Your task to perform on an android device: toggle priority inbox in the gmail app Image 0: 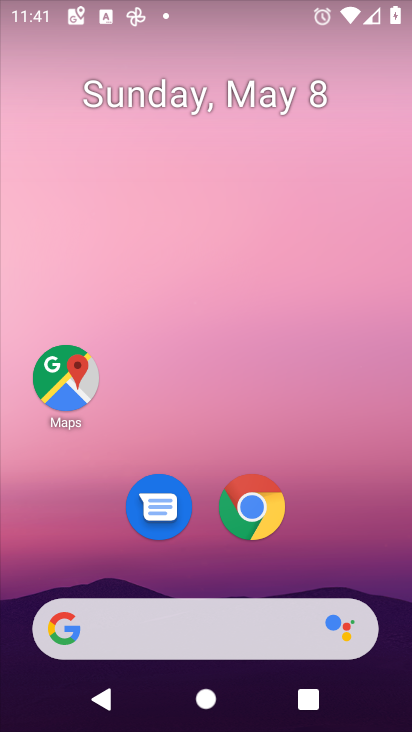
Step 0: drag from (242, 674) to (157, 135)
Your task to perform on an android device: toggle priority inbox in the gmail app Image 1: 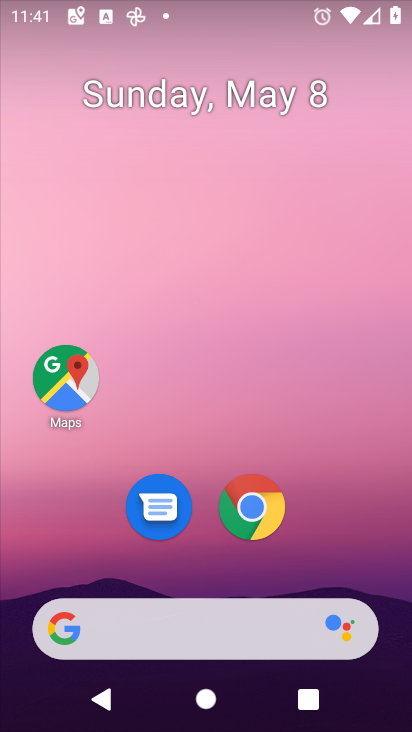
Step 1: drag from (254, 615) to (253, 1)
Your task to perform on an android device: toggle priority inbox in the gmail app Image 2: 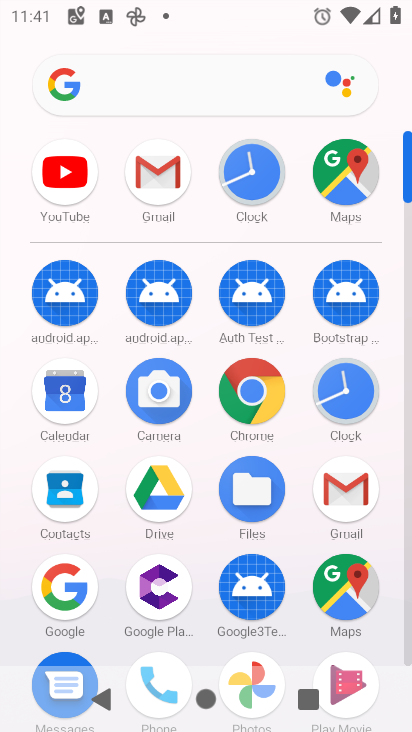
Step 2: click (344, 492)
Your task to perform on an android device: toggle priority inbox in the gmail app Image 3: 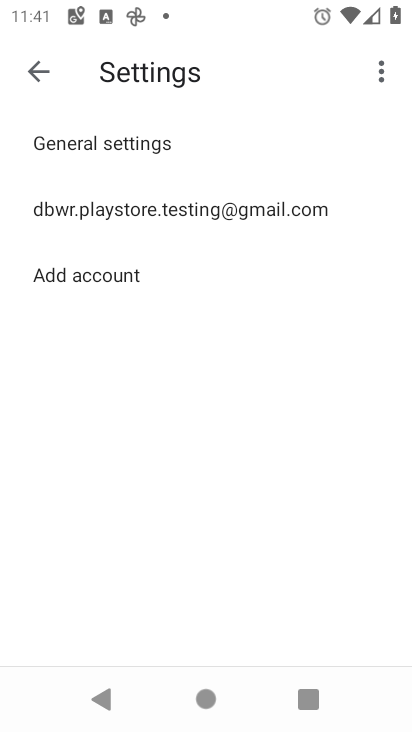
Step 3: click (130, 213)
Your task to perform on an android device: toggle priority inbox in the gmail app Image 4: 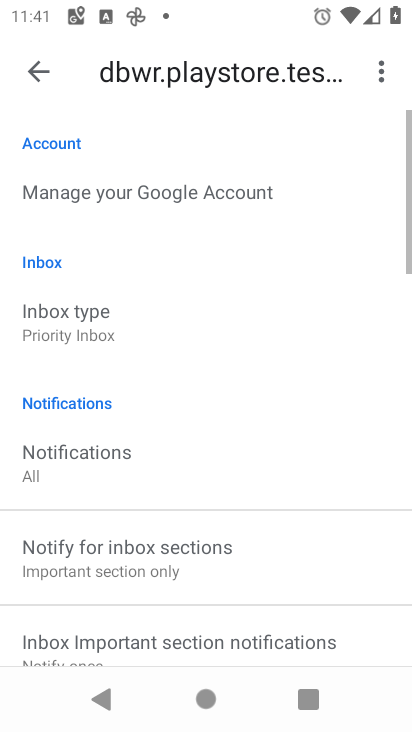
Step 4: click (69, 321)
Your task to perform on an android device: toggle priority inbox in the gmail app Image 5: 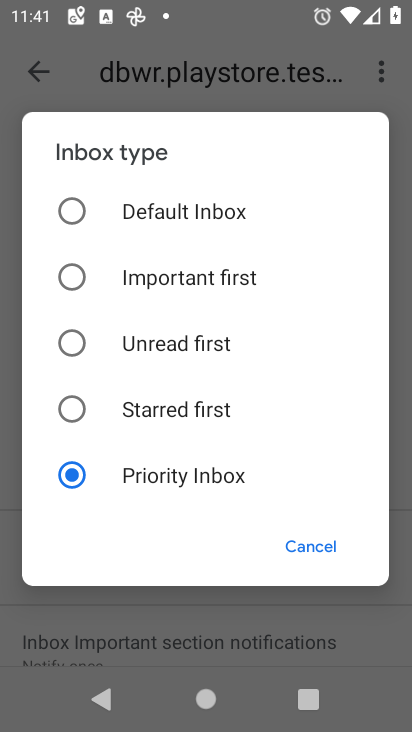
Step 5: click (67, 205)
Your task to perform on an android device: toggle priority inbox in the gmail app Image 6: 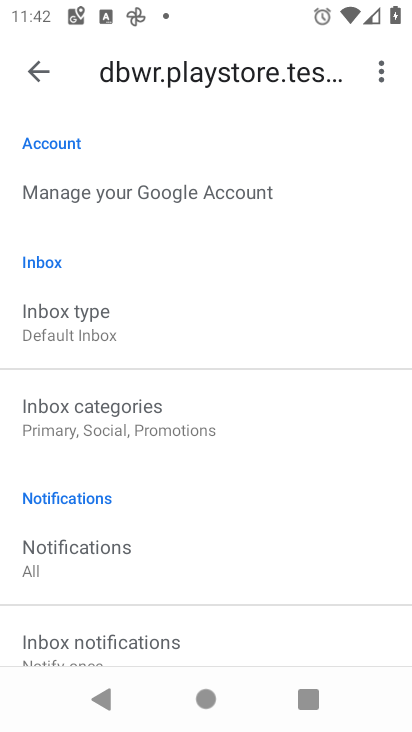
Step 6: task complete